Your task to perform on an android device: Open Chrome and go to the settings page Image 0: 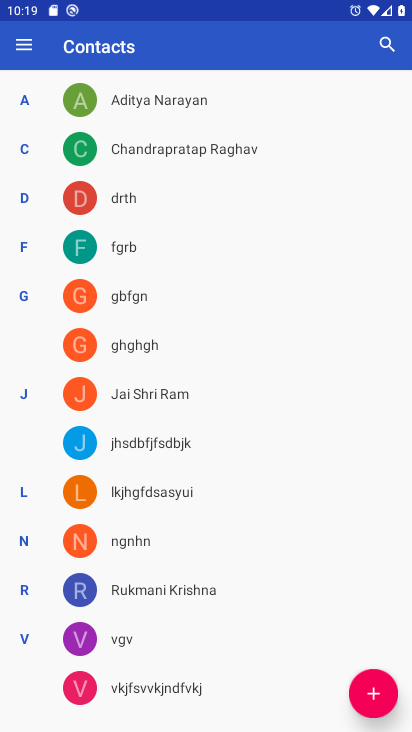
Step 0: drag from (198, 608) to (218, 257)
Your task to perform on an android device: Open Chrome and go to the settings page Image 1: 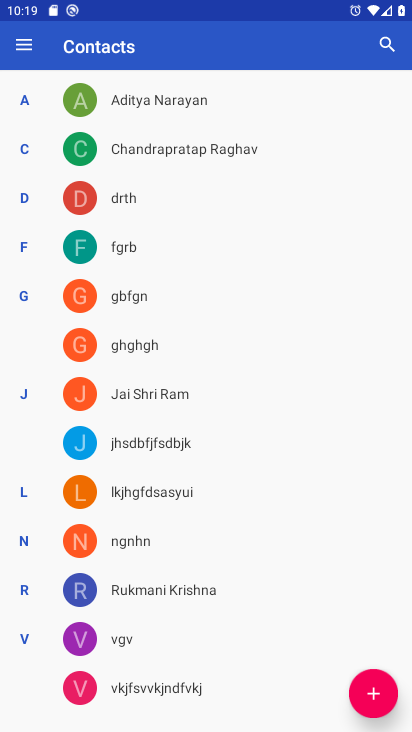
Step 1: drag from (200, 605) to (187, 287)
Your task to perform on an android device: Open Chrome and go to the settings page Image 2: 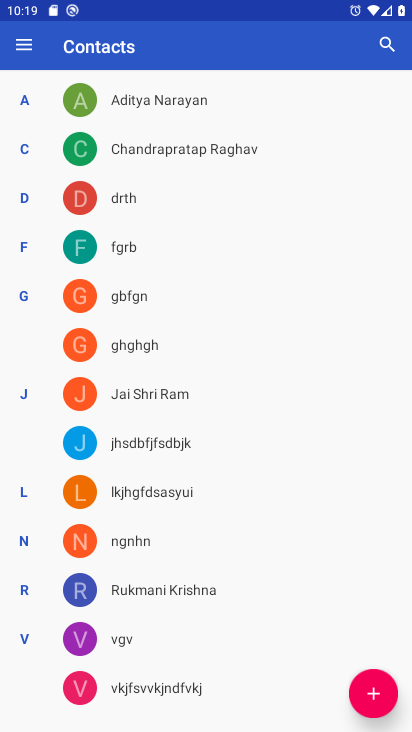
Step 2: drag from (246, 553) to (219, 356)
Your task to perform on an android device: Open Chrome and go to the settings page Image 3: 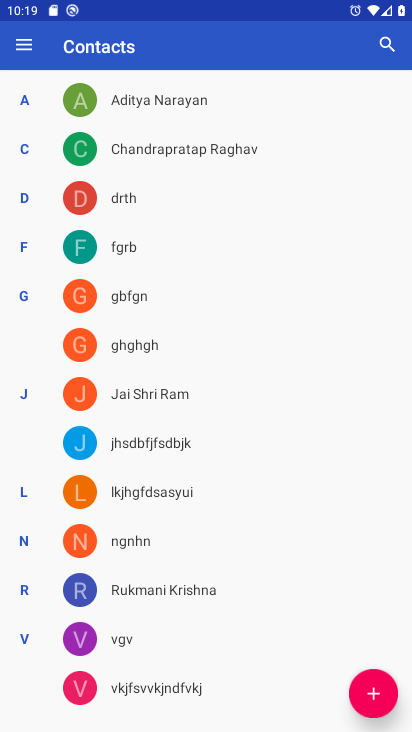
Step 3: drag from (200, 254) to (241, 610)
Your task to perform on an android device: Open Chrome and go to the settings page Image 4: 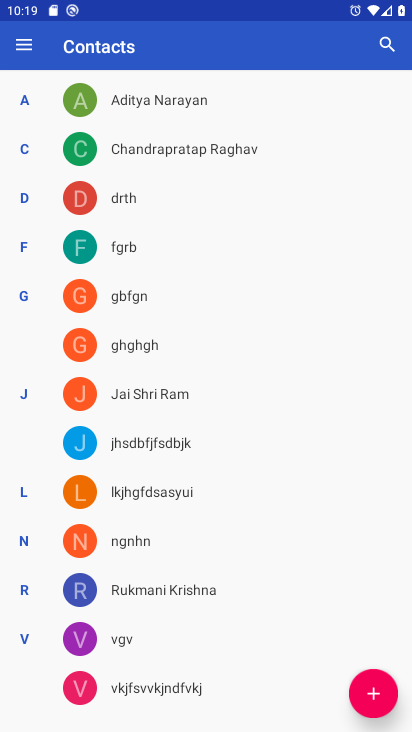
Step 4: press home button
Your task to perform on an android device: Open Chrome and go to the settings page Image 5: 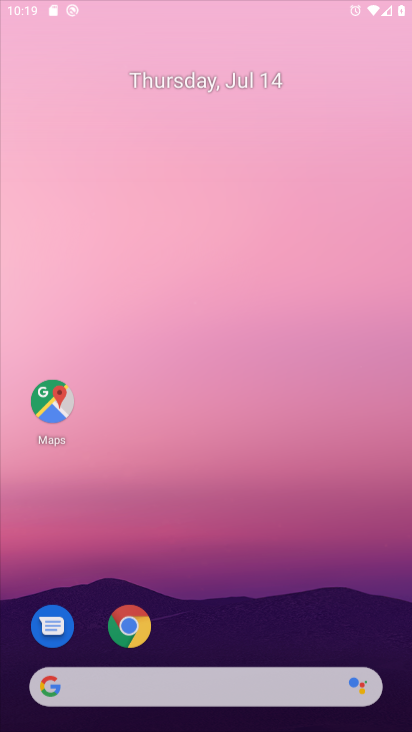
Step 5: drag from (195, 609) to (235, 357)
Your task to perform on an android device: Open Chrome and go to the settings page Image 6: 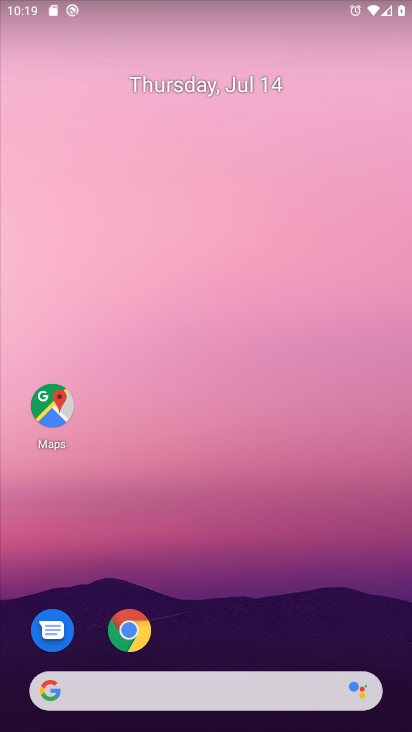
Step 6: drag from (180, 639) to (210, 289)
Your task to perform on an android device: Open Chrome and go to the settings page Image 7: 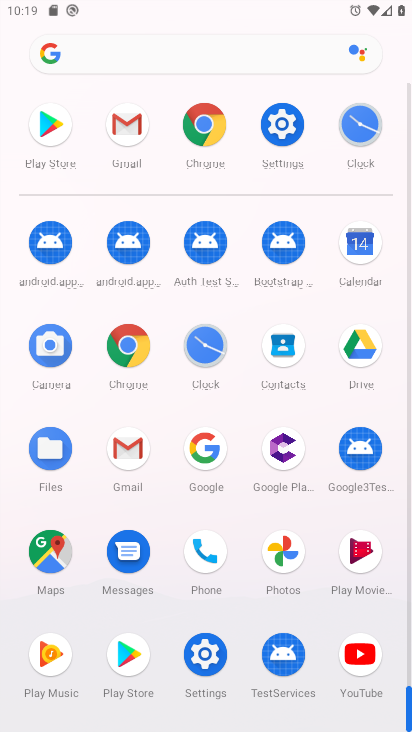
Step 7: click (208, 653)
Your task to perform on an android device: Open Chrome and go to the settings page Image 8: 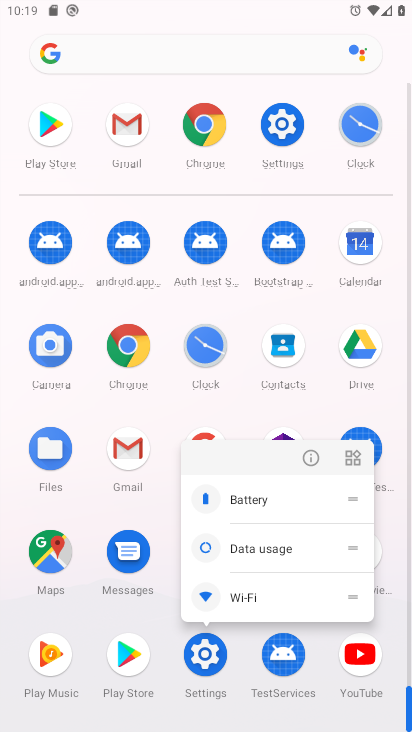
Step 8: click (312, 456)
Your task to perform on an android device: Open Chrome and go to the settings page Image 9: 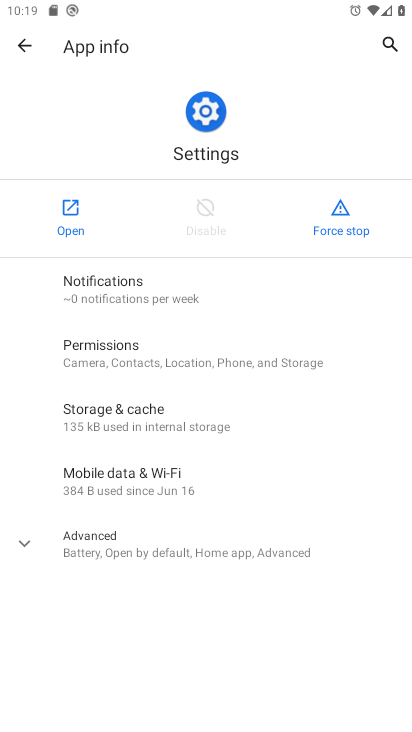
Step 9: press home button
Your task to perform on an android device: Open Chrome and go to the settings page Image 10: 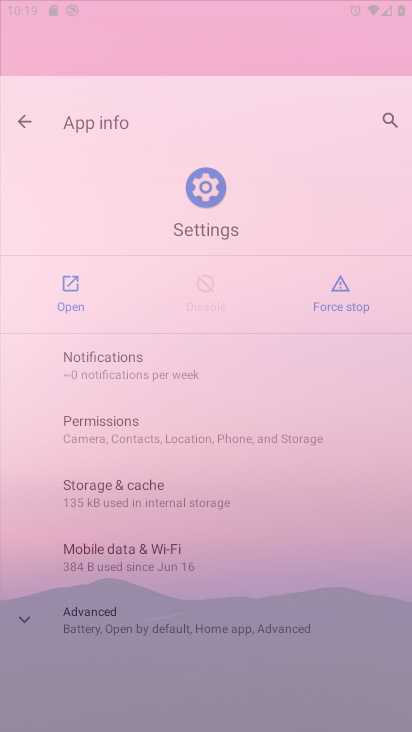
Step 10: drag from (162, 647) to (240, 194)
Your task to perform on an android device: Open Chrome and go to the settings page Image 11: 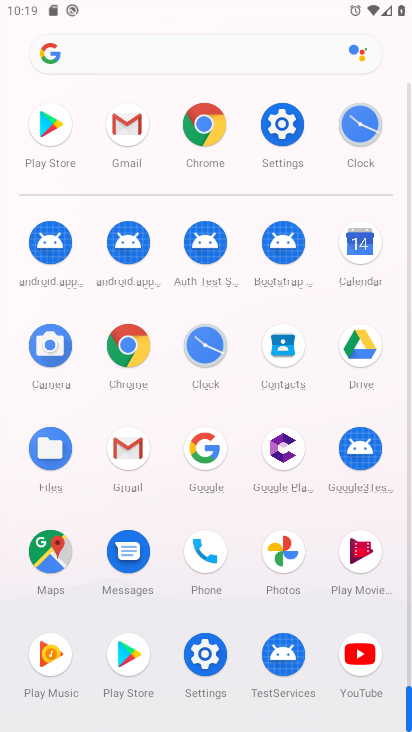
Step 11: click (125, 338)
Your task to perform on an android device: Open Chrome and go to the settings page Image 12: 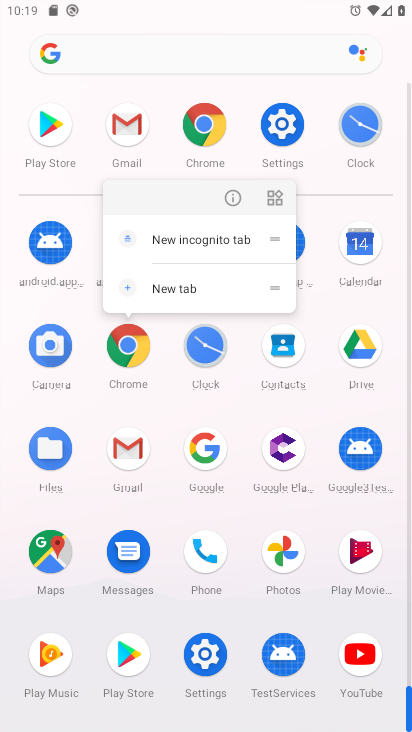
Step 12: click (234, 192)
Your task to perform on an android device: Open Chrome and go to the settings page Image 13: 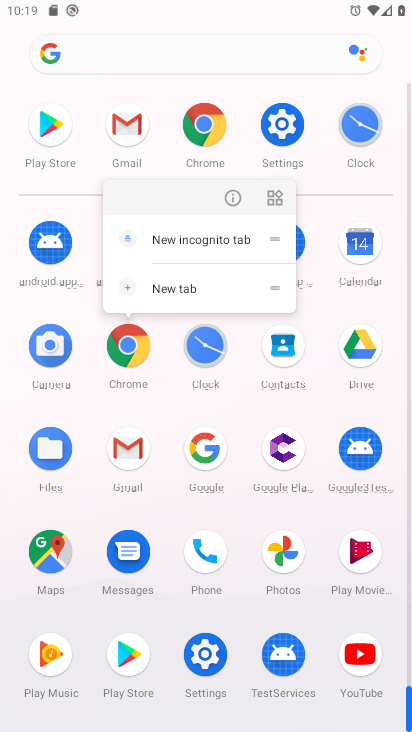
Step 13: click (229, 198)
Your task to perform on an android device: Open Chrome and go to the settings page Image 14: 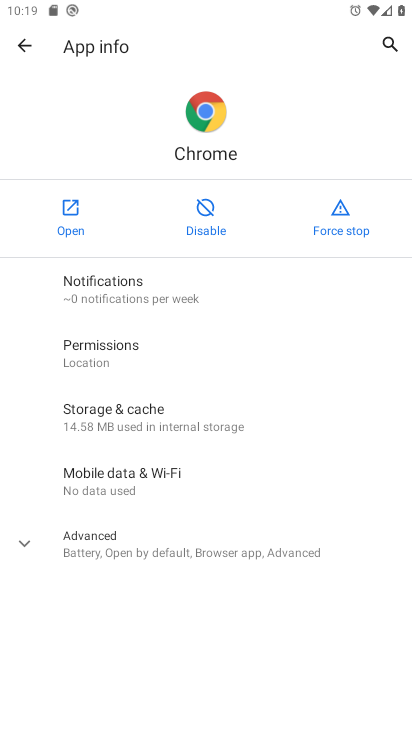
Step 14: click (68, 207)
Your task to perform on an android device: Open Chrome and go to the settings page Image 15: 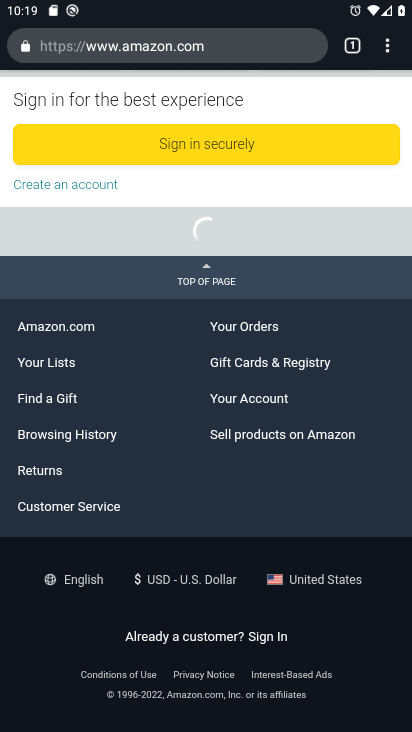
Step 15: drag from (193, 479) to (194, 295)
Your task to perform on an android device: Open Chrome and go to the settings page Image 16: 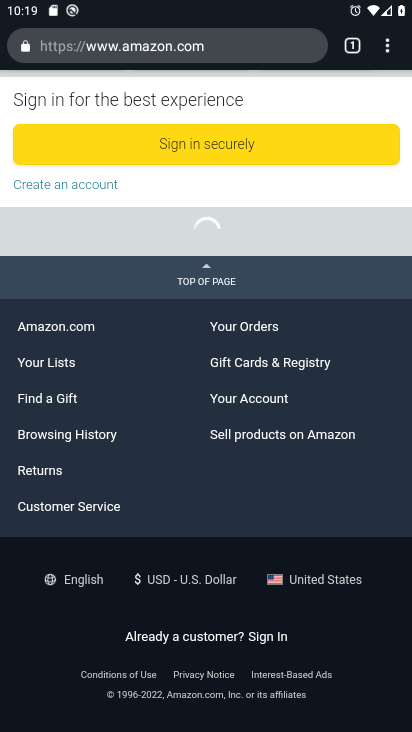
Step 16: drag from (94, 177) to (186, 582)
Your task to perform on an android device: Open Chrome and go to the settings page Image 17: 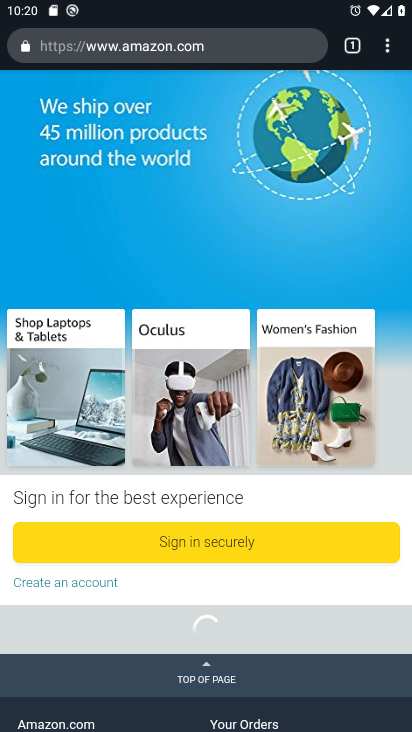
Step 17: click (385, 47)
Your task to perform on an android device: Open Chrome and go to the settings page Image 18: 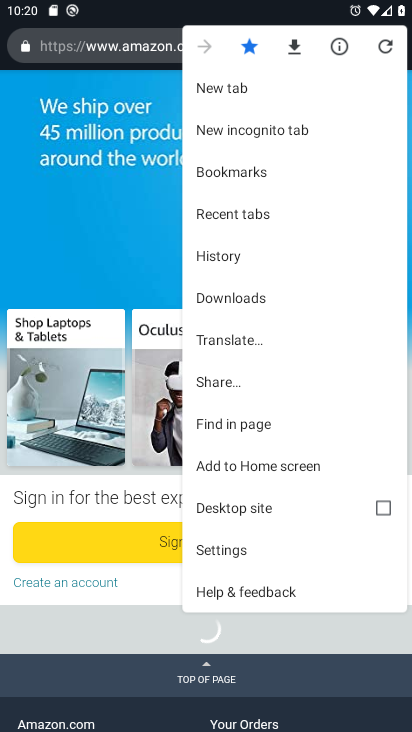
Step 18: click (230, 551)
Your task to perform on an android device: Open Chrome and go to the settings page Image 19: 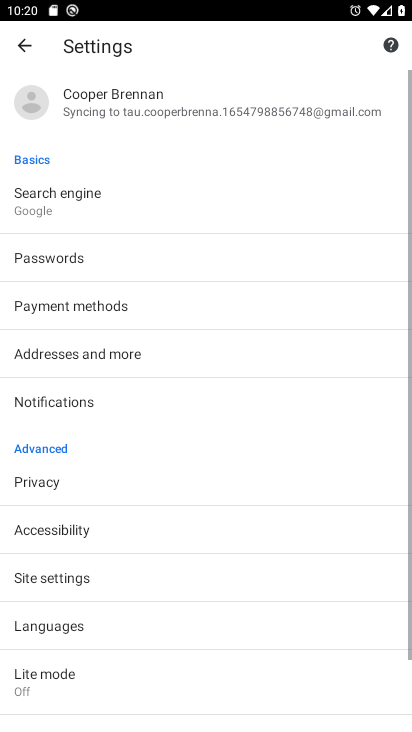
Step 19: task complete